Your task to perform on an android device: add a contact in the contacts app Image 0: 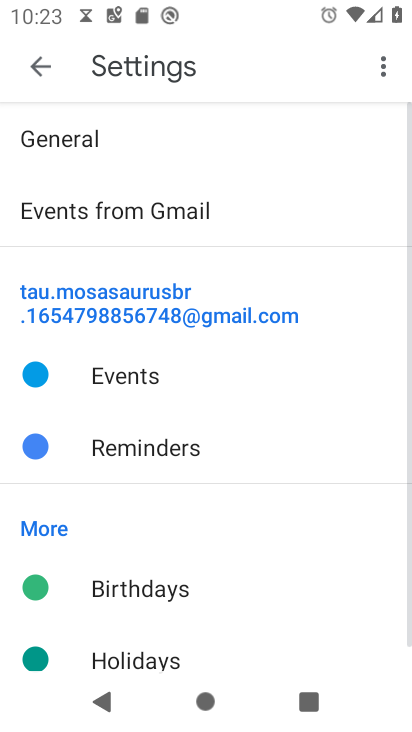
Step 0: press home button
Your task to perform on an android device: add a contact in the contacts app Image 1: 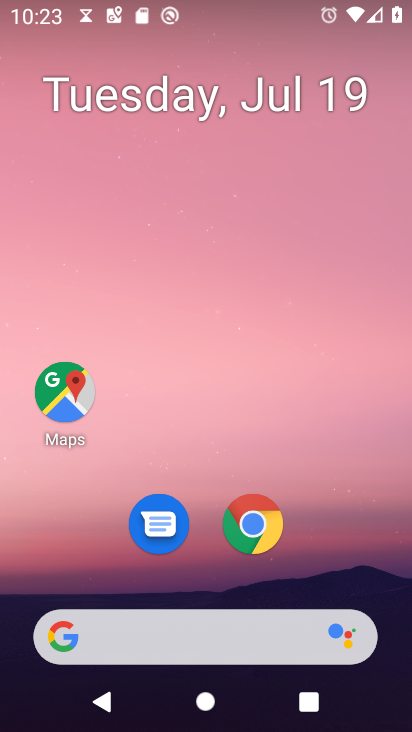
Step 1: drag from (229, 606) to (358, 67)
Your task to perform on an android device: add a contact in the contacts app Image 2: 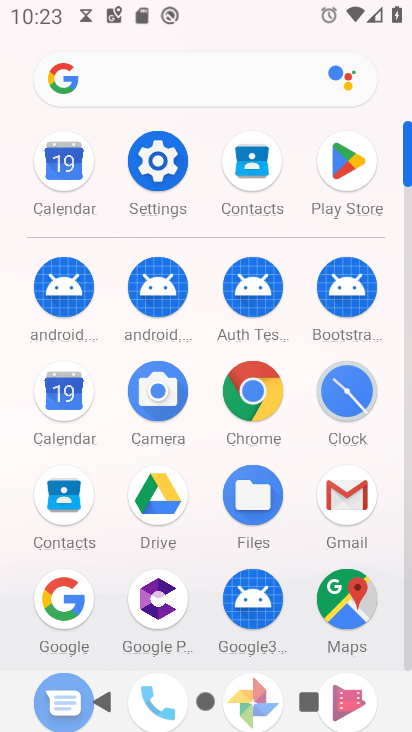
Step 2: click (250, 169)
Your task to perform on an android device: add a contact in the contacts app Image 3: 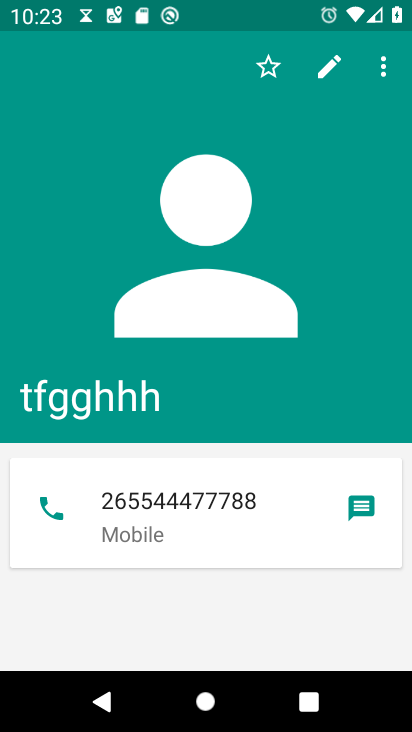
Step 3: press back button
Your task to perform on an android device: add a contact in the contacts app Image 4: 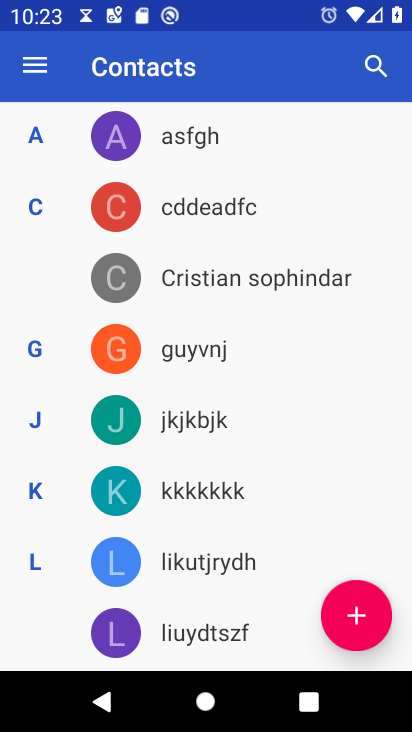
Step 4: click (359, 623)
Your task to perform on an android device: add a contact in the contacts app Image 5: 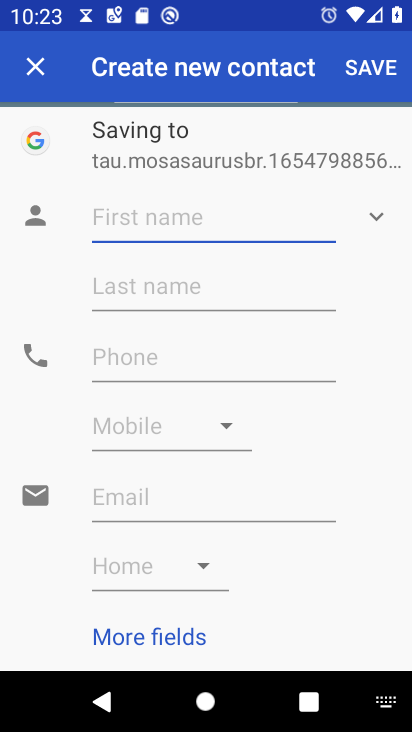
Step 5: type "awerrrds"
Your task to perform on an android device: add a contact in the contacts app Image 6: 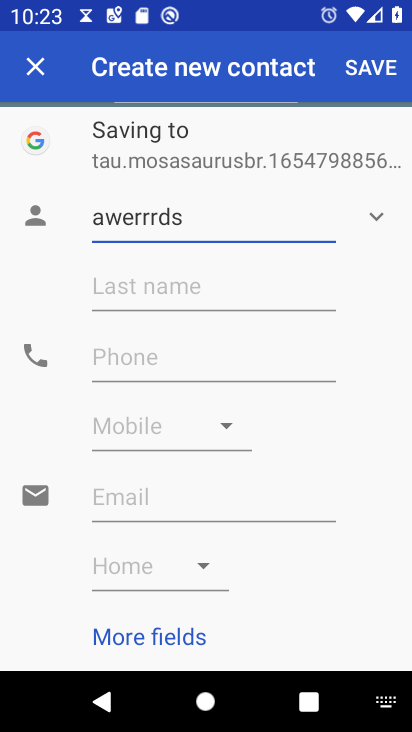
Step 6: click (123, 358)
Your task to perform on an android device: add a contact in the contacts app Image 7: 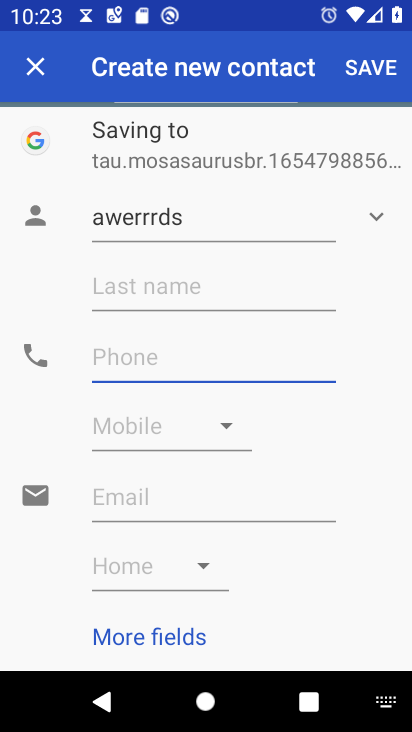
Step 7: type "5920165"
Your task to perform on an android device: add a contact in the contacts app Image 8: 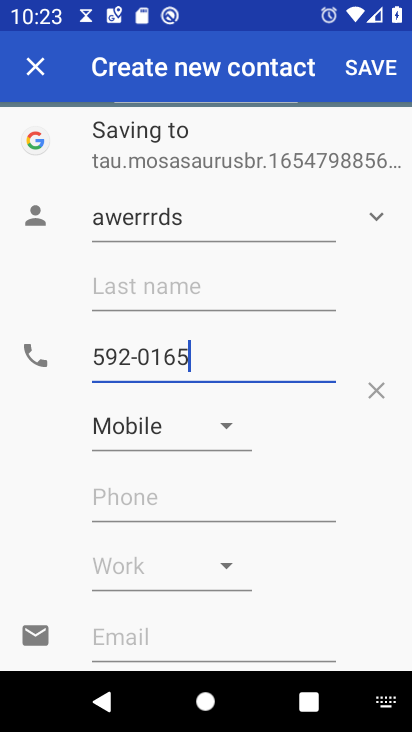
Step 8: click (372, 66)
Your task to perform on an android device: add a contact in the contacts app Image 9: 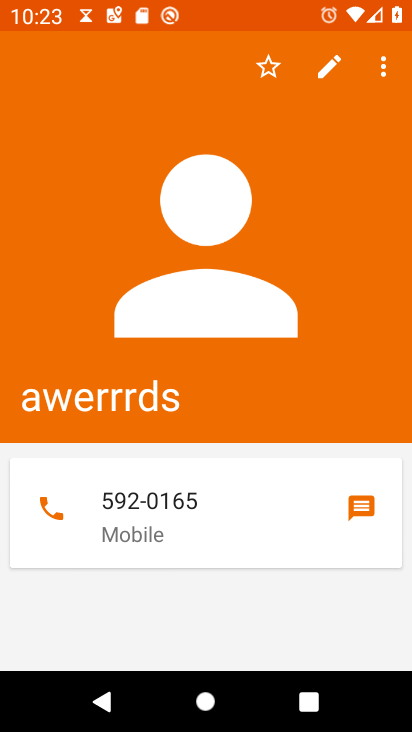
Step 9: task complete